Your task to perform on an android device: Open maps Image 0: 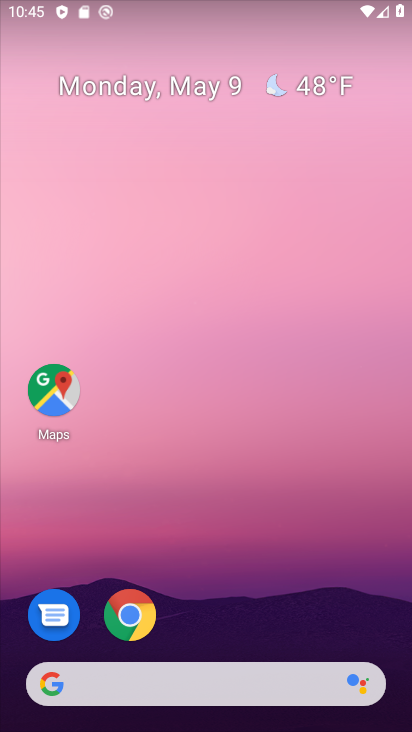
Step 0: drag from (201, 649) to (222, 43)
Your task to perform on an android device: Open maps Image 1: 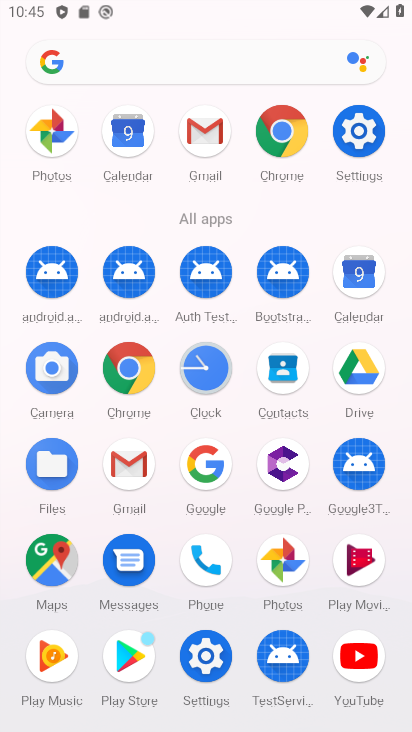
Step 1: click (53, 550)
Your task to perform on an android device: Open maps Image 2: 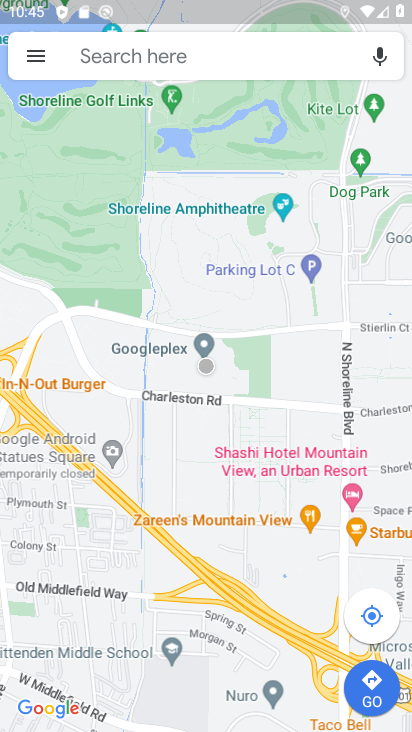
Step 2: task complete